Your task to perform on an android device: open a bookmark in the chrome app Image 0: 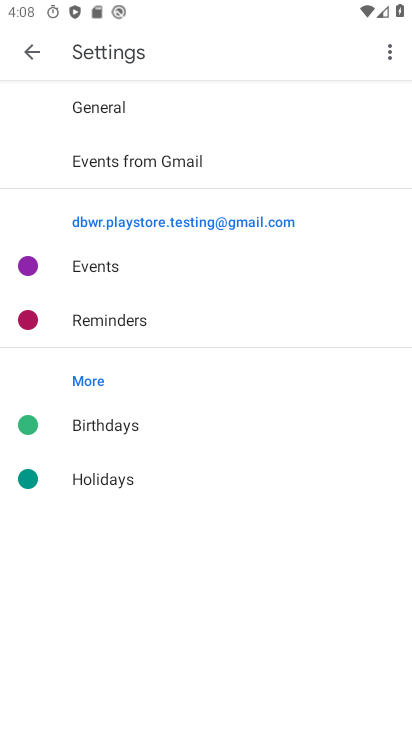
Step 0: press home button
Your task to perform on an android device: open a bookmark in the chrome app Image 1: 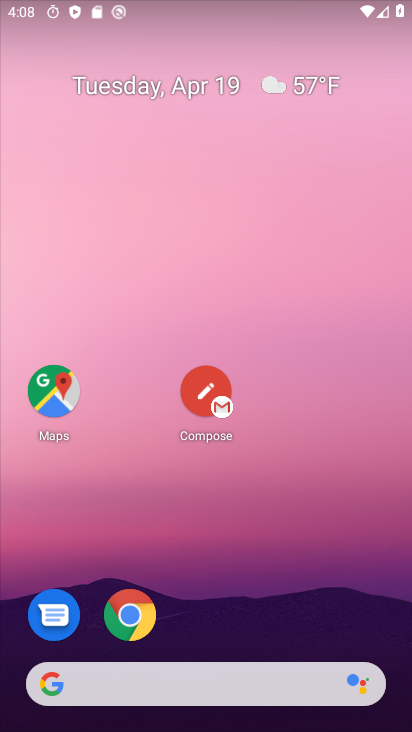
Step 1: drag from (299, 653) to (344, 27)
Your task to perform on an android device: open a bookmark in the chrome app Image 2: 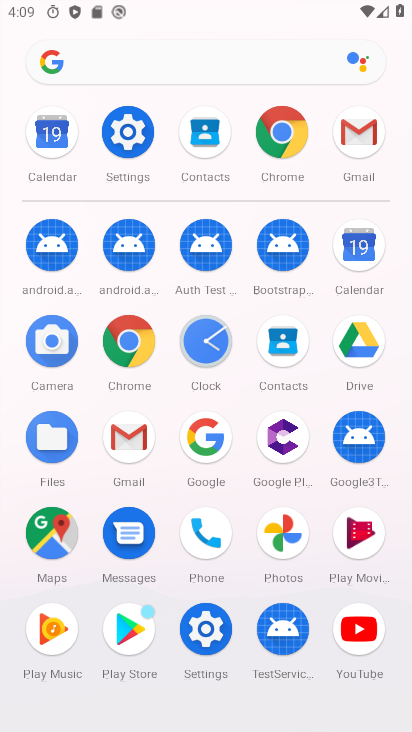
Step 2: click (143, 341)
Your task to perform on an android device: open a bookmark in the chrome app Image 3: 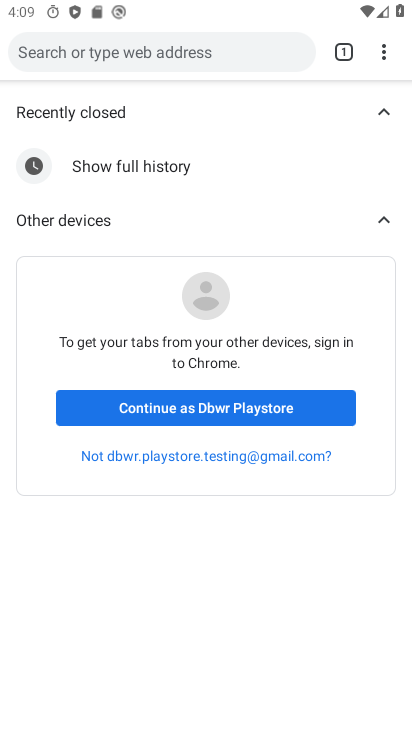
Step 3: click (379, 50)
Your task to perform on an android device: open a bookmark in the chrome app Image 4: 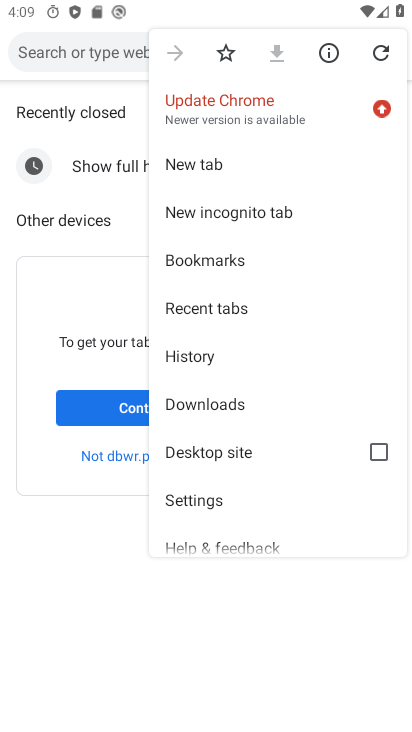
Step 4: click (275, 253)
Your task to perform on an android device: open a bookmark in the chrome app Image 5: 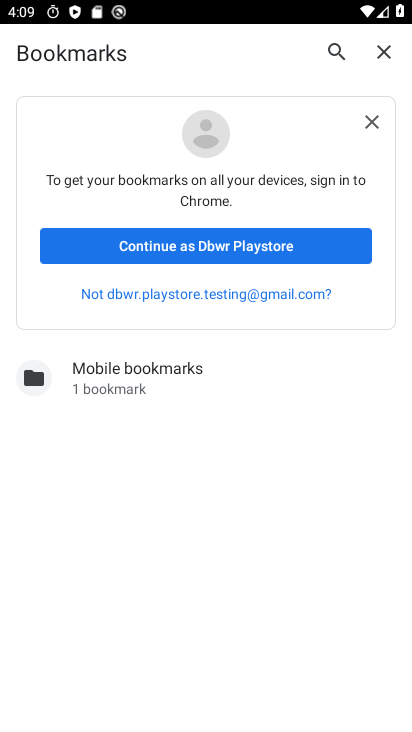
Step 5: task complete